Your task to perform on an android device: change keyboard looks Image 0: 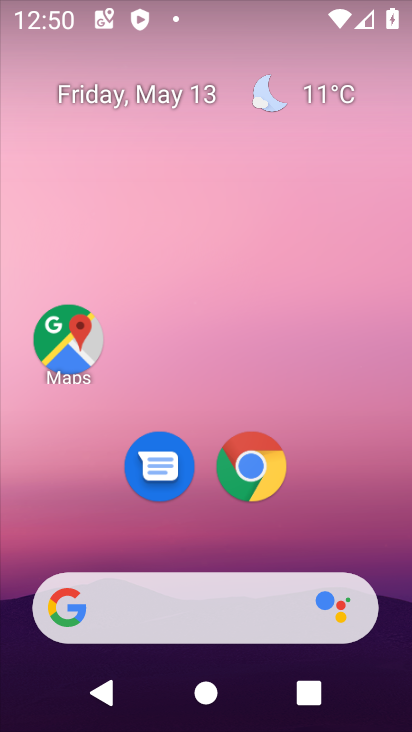
Step 0: drag from (325, 522) to (361, 11)
Your task to perform on an android device: change keyboard looks Image 1: 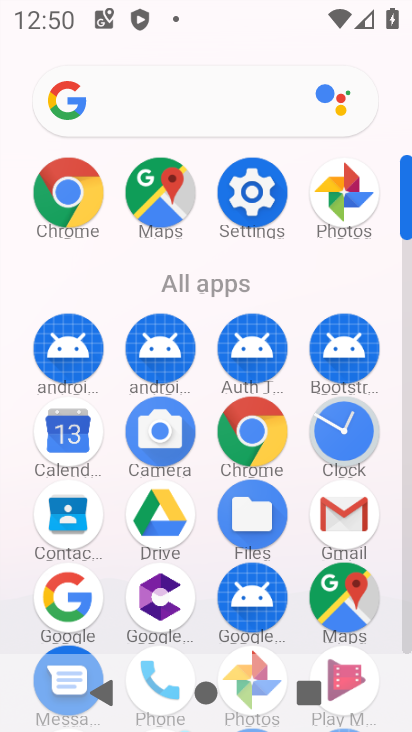
Step 1: click (244, 183)
Your task to perform on an android device: change keyboard looks Image 2: 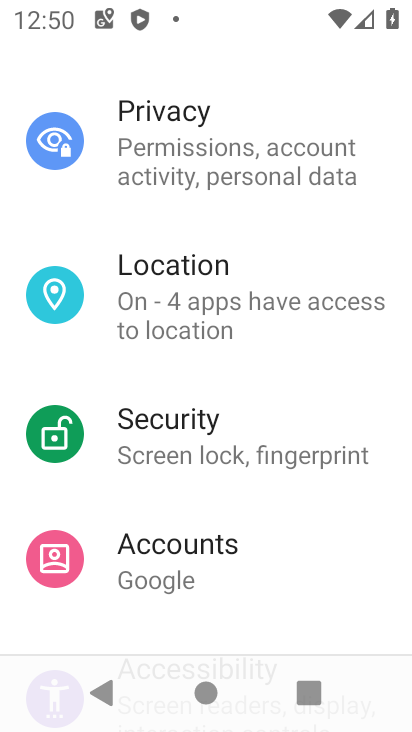
Step 2: drag from (160, 554) to (159, 144)
Your task to perform on an android device: change keyboard looks Image 3: 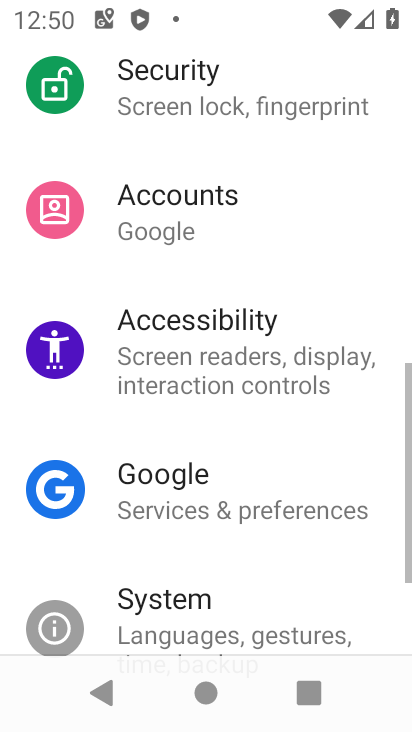
Step 3: drag from (175, 534) to (211, 183)
Your task to perform on an android device: change keyboard looks Image 4: 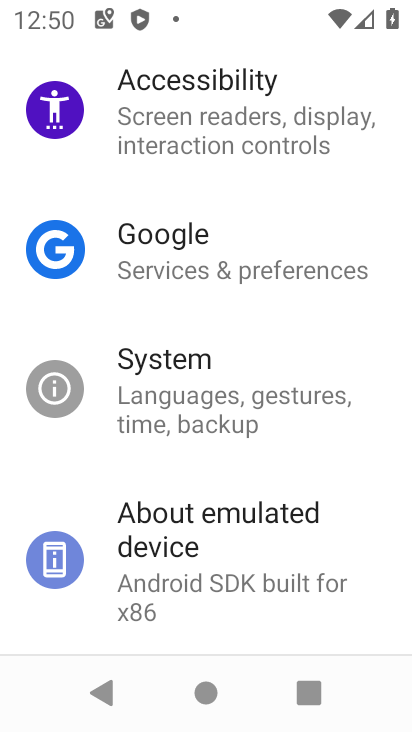
Step 4: click (193, 405)
Your task to perform on an android device: change keyboard looks Image 5: 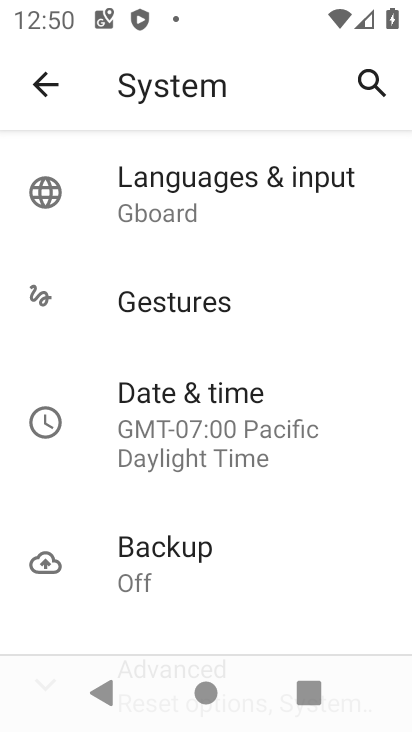
Step 5: click (237, 184)
Your task to perform on an android device: change keyboard looks Image 6: 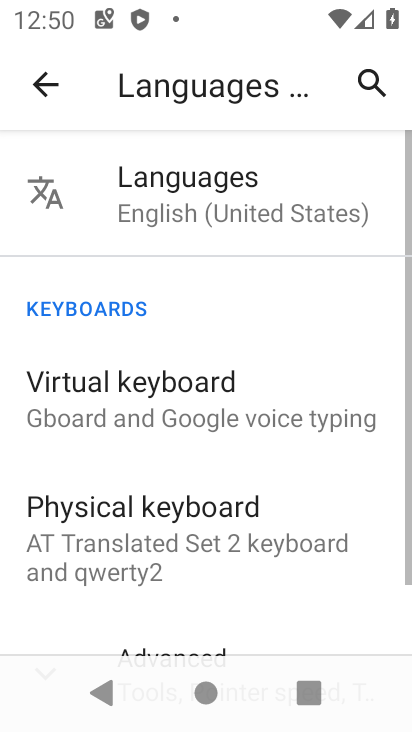
Step 6: click (133, 416)
Your task to perform on an android device: change keyboard looks Image 7: 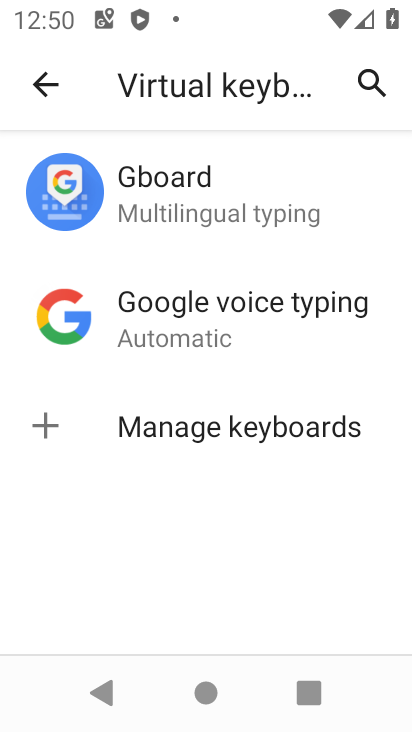
Step 7: click (222, 182)
Your task to perform on an android device: change keyboard looks Image 8: 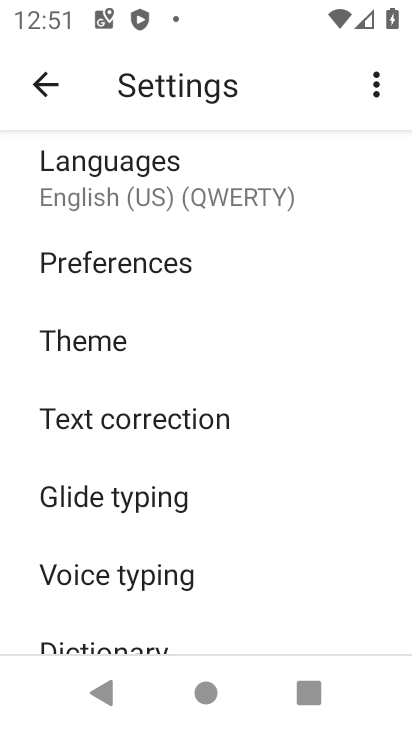
Step 8: click (134, 348)
Your task to perform on an android device: change keyboard looks Image 9: 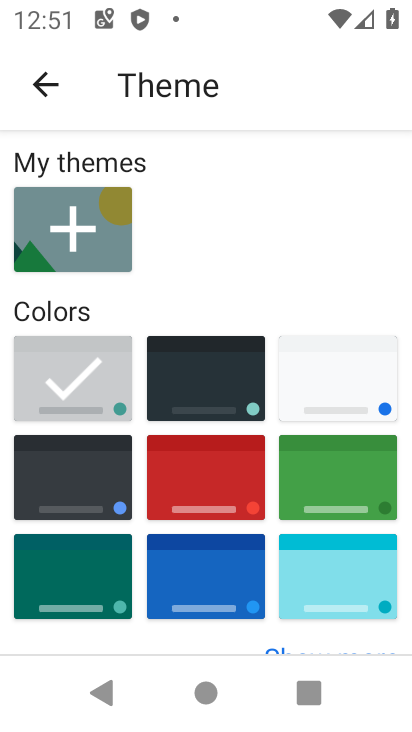
Step 9: click (378, 467)
Your task to perform on an android device: change keyboard looks Image 10: 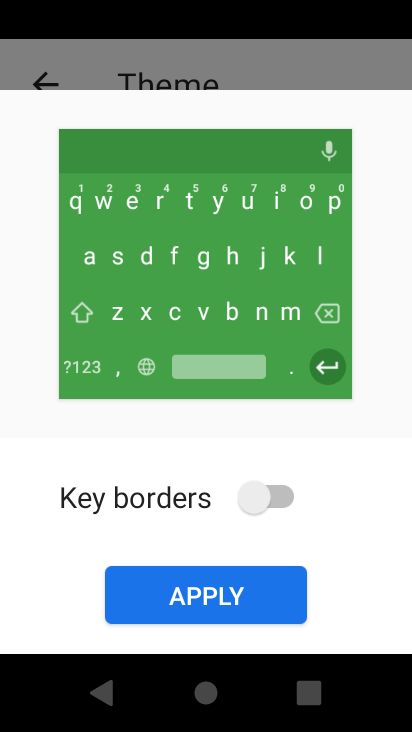
Step 10: click (217, 588)
Your task to perform on an android device: change keyboard looks Image 11: 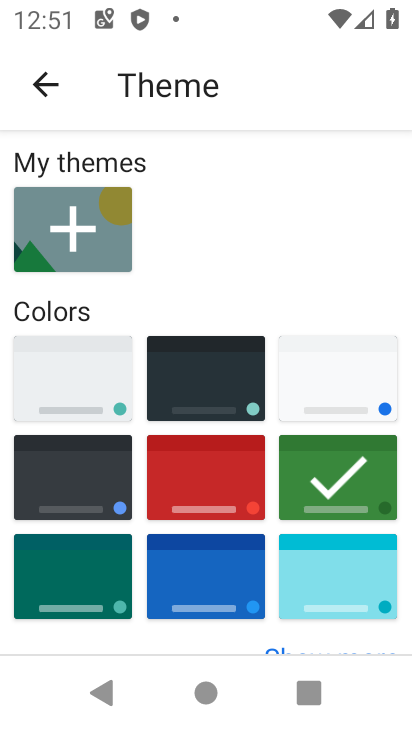
Step 11: task complete